Your task to perform on an android device: turn on data saver in the chrome app Image 0: 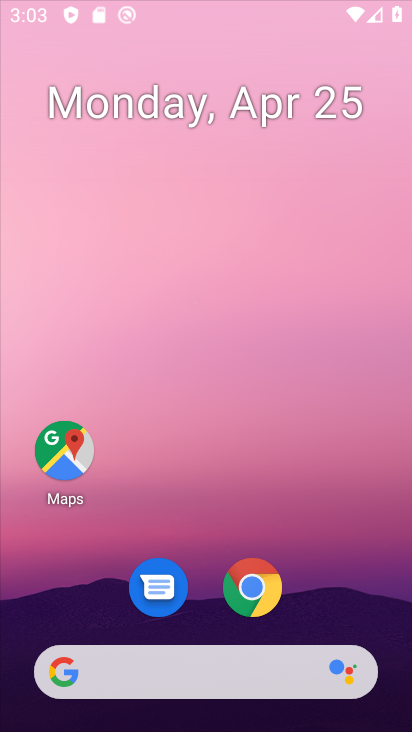
Step 0: click (352, 99)
Your task to perform on an android device: turn on data saver in the chrome app Image 1: 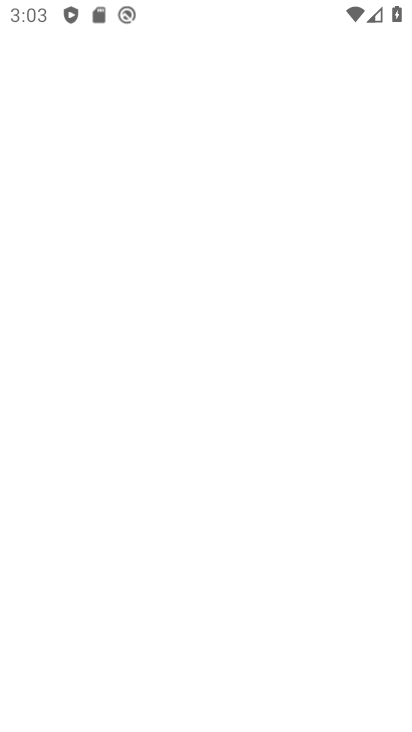
Step 1: press back button
Your task to perform on an android device: turn on data saver in the chrome app Image 2: 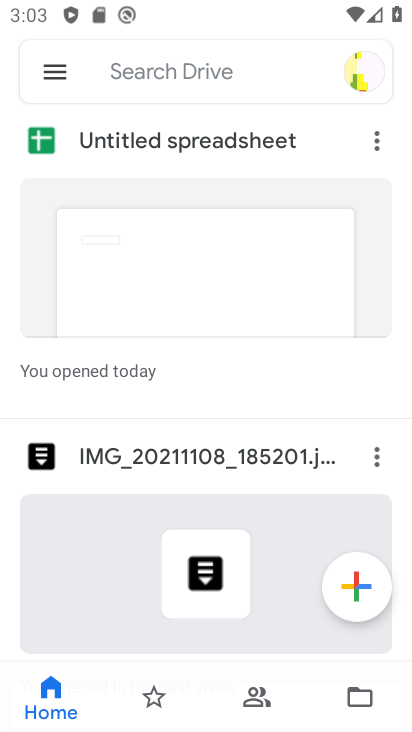
Step 2: press back button
Your task to perform on an android device: turn on data saver in the chrome app Image 3: 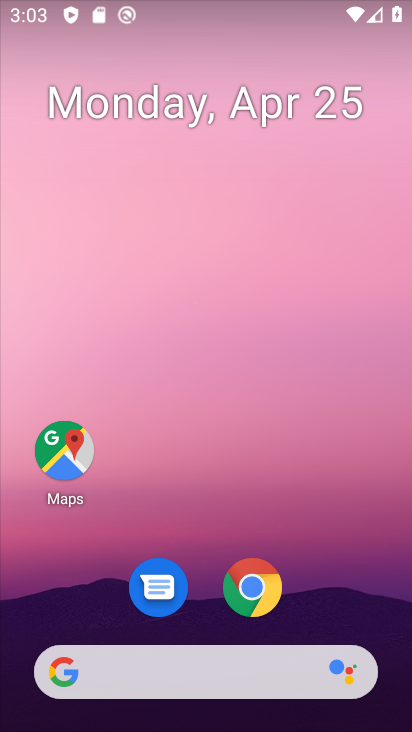
Step 3: click (247, 588)
Your task to perform on an android device: turn on data saver in the chrome app Image 4: 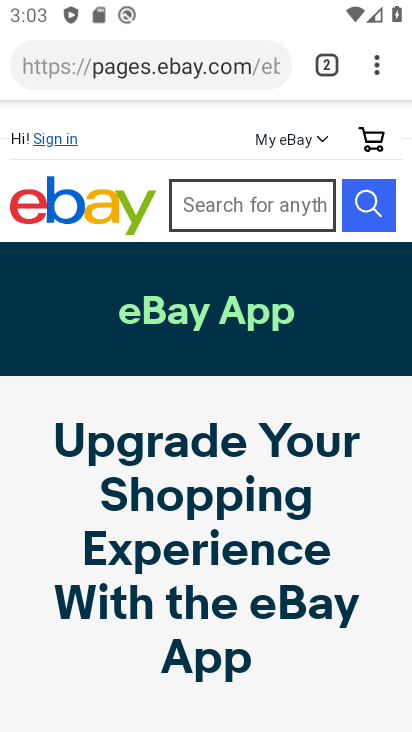
Step 4: click (374, 67)
Your task to perform on an android device: turn on data saver in the chrome app Image 5: 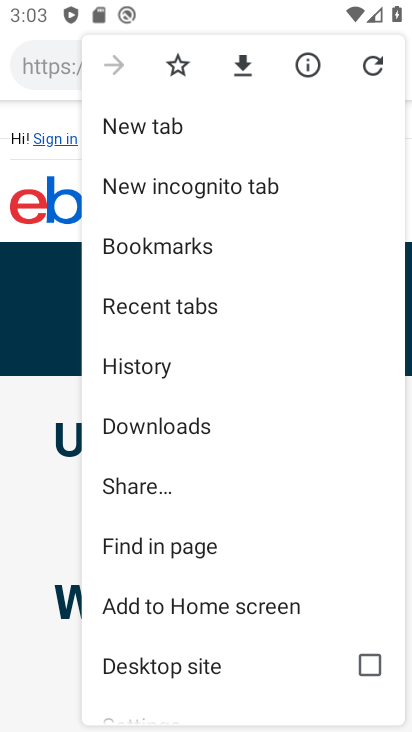
Step 5: drag from (127, 595) to (172, 204)
Your task to perform on an android device: turn on data saver in the chrome app Image 6: 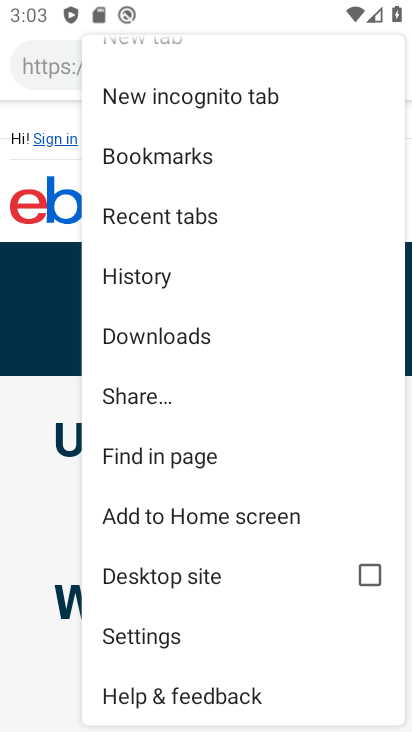
Step 6: click (143, 631)
Your task to perform on an android device: turn on data saver in the chrome app Image 7: 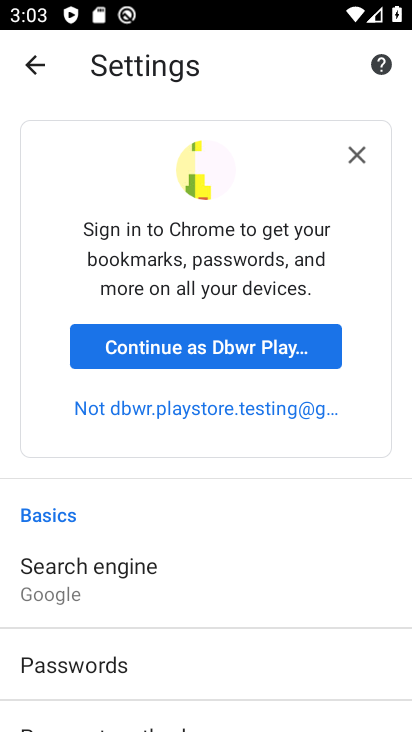
Step 7: drag from (143, 631) to (194, 228)
Your task to perform on an android device: turn on data saver in the chrome app Image 8: 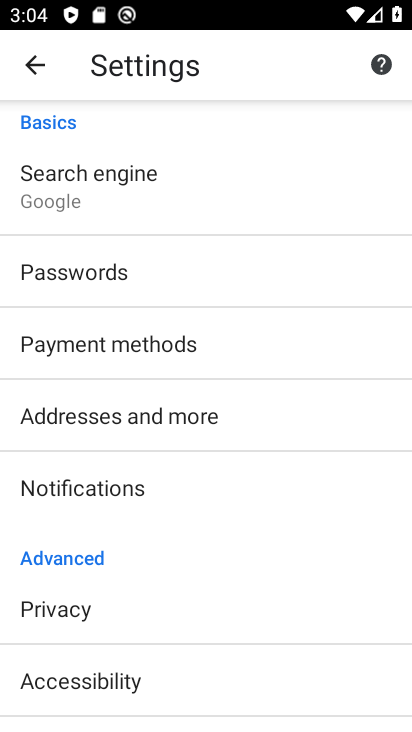
Step 8: drag from (195, 565) to (226, 219)
Your task to perform on an android device: turn on data saver in the chrome app Image 9: 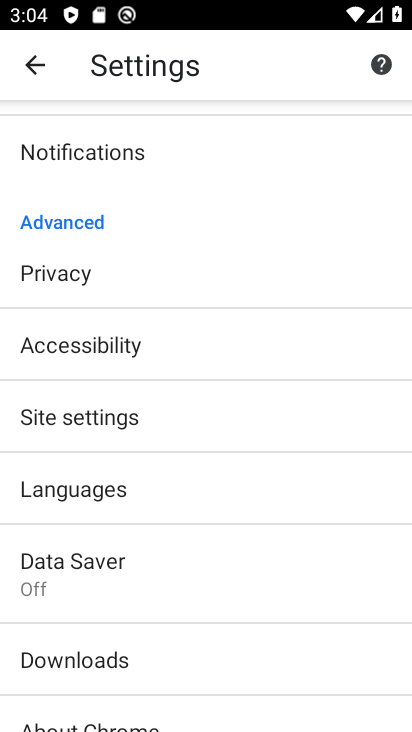
Step 9: click (107, 552)
Your task to perform on an android device: turn on data saver in the chrome app Image 10: 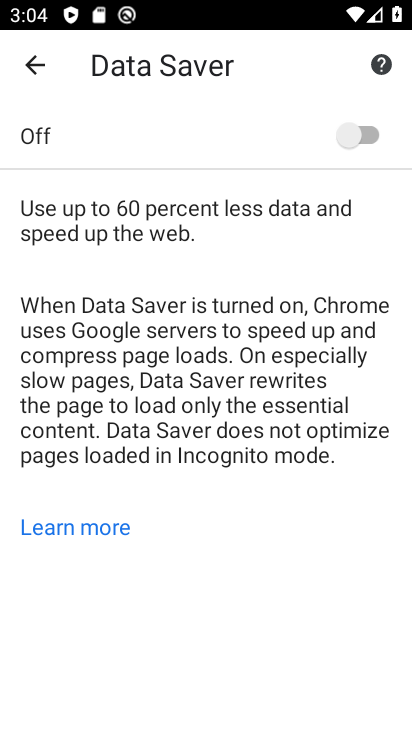
Step 10: click (371, 140)
Your task to perform on an android device: turn on data saver in the chrome app Image 11: 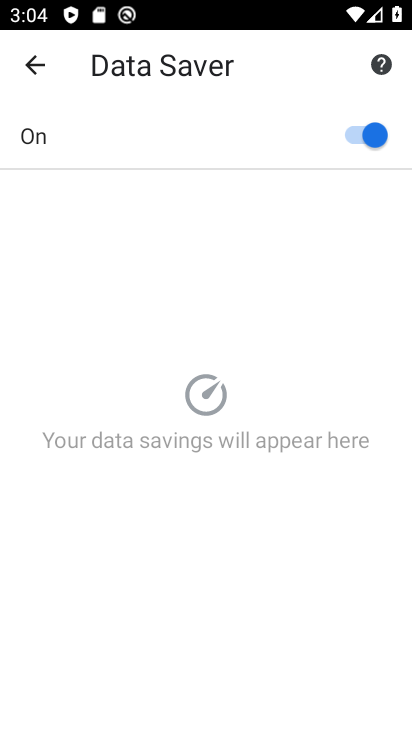
Step 11: task complete